Your task to perform on an android device: find which apps use the phone's location Image 0: 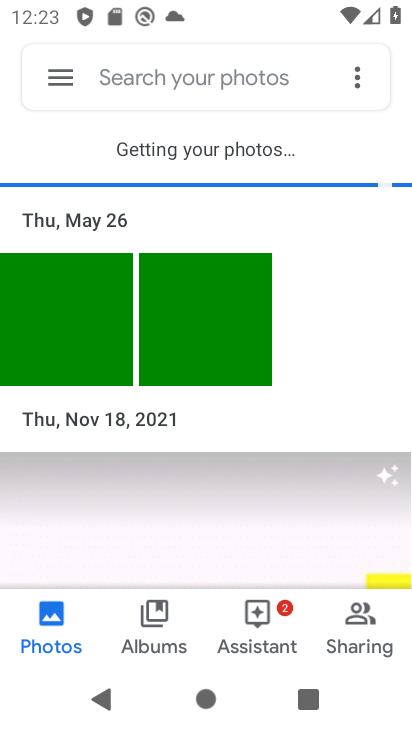
Step 0: press home button
Your task to perform on an android device: find which apps use the phone's location Image 1: 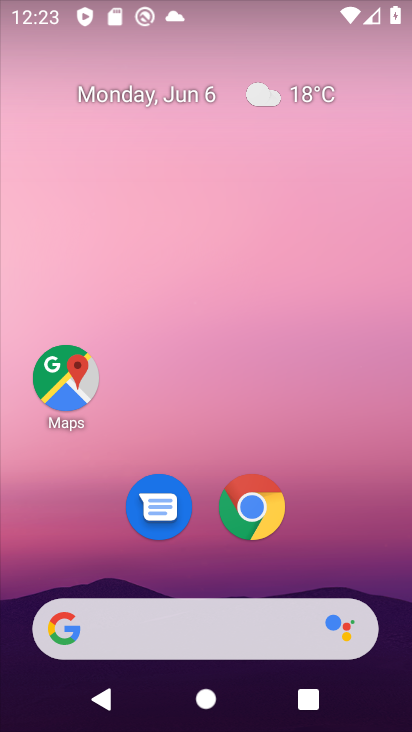
Step 1: drag from (185, 547) to (242, 7)
Your task to perform on an android device: find which apps use the phone's location Image 2: 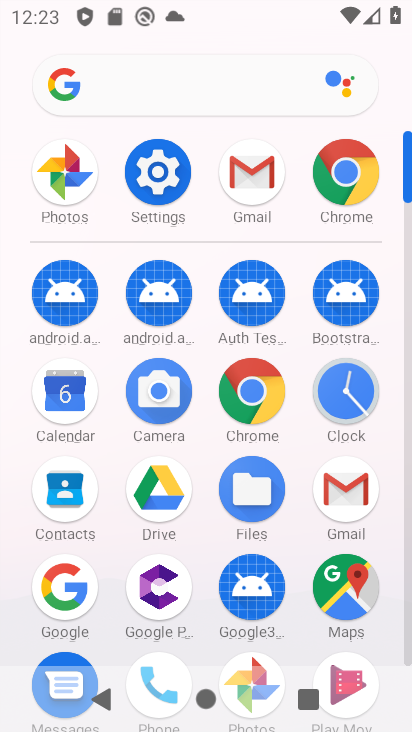
Step 2: click (169, 209)
Your task to perform on an android device: find which apps use the phone's location Image 3: 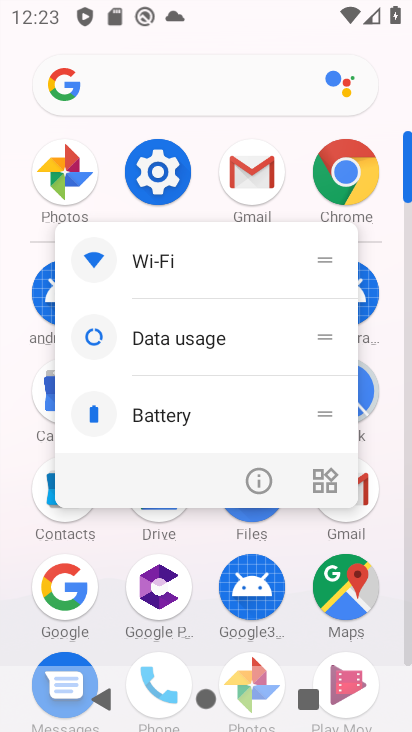
Step 3: click (163, 161)
Your task to perform on an android device: find which apps use the phone's location Image 4: 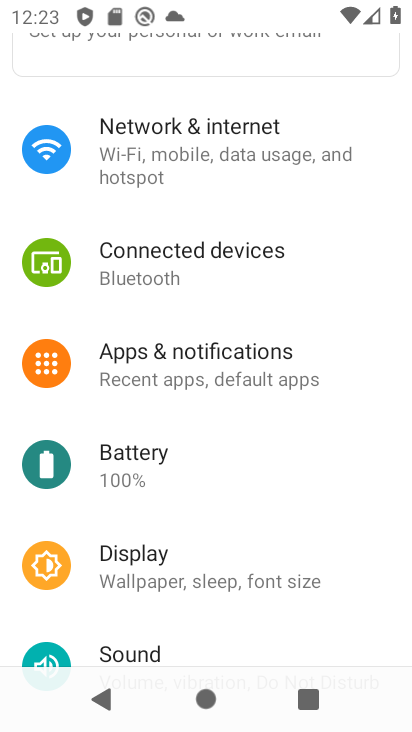
Step 4: drag from (222, 511) to (267, 226)
Your task to perform on an android device: find which apps use the phone's location Image 5: 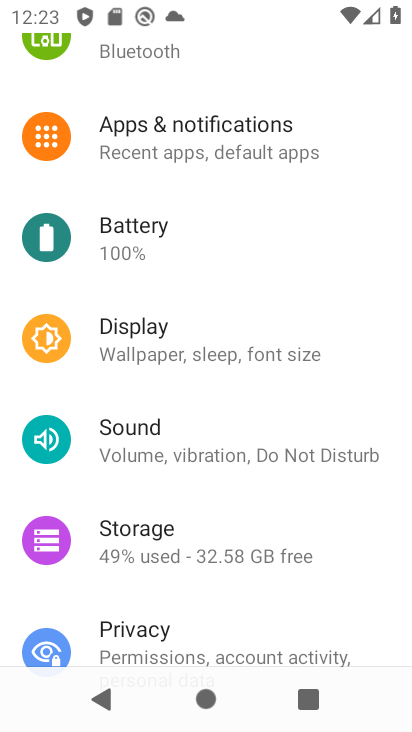
Step 5: drag from (236, 621) to (278, 309)
Your task to perform on an android device: find which apps use the phone's location Image 6: 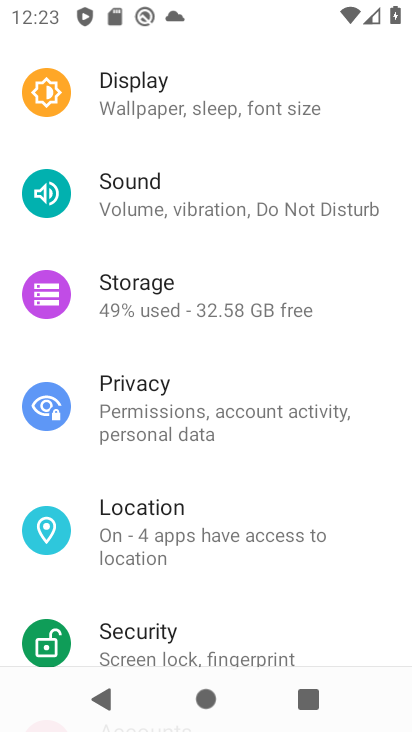
Step 6: click (172, 535)
Your task to perform on an android device: find which apps use the phone's location Image 7: 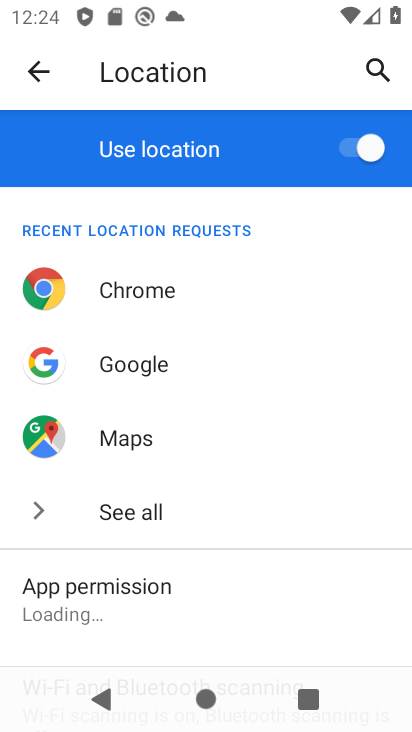
Step 7: click (131, 598)
Your task to perform on an android device: find which apps use the phone's location Image 8: 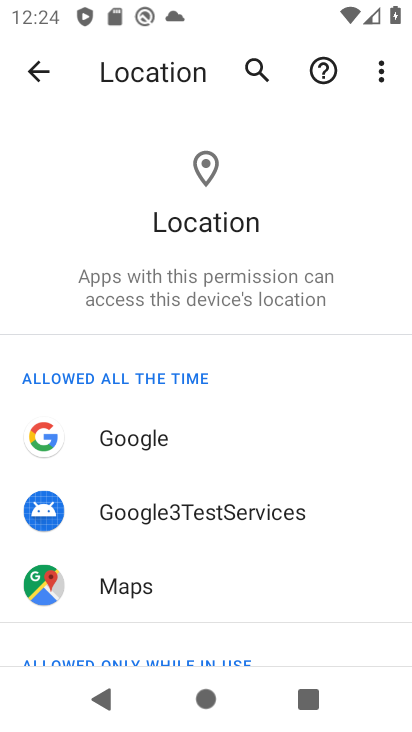
Step 8: task complete